Your task to perform on an android device: Open Reddit.com Image 0: 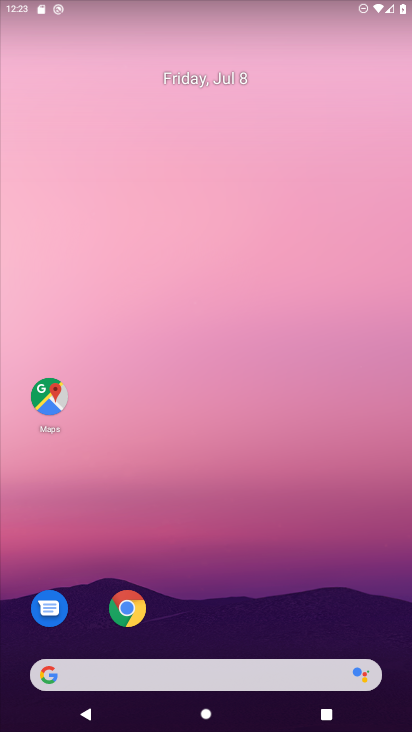
Step 0: click (124, 611)
Your task to perform on an android device: Open Reddit.com Image 1: 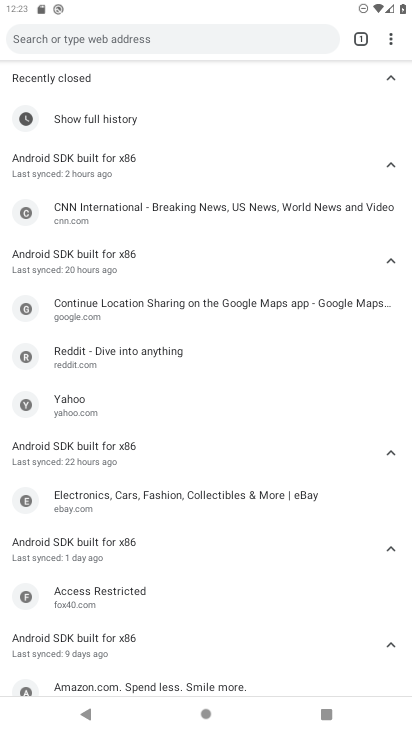
Step 1: click (392, 39)
Your task to perform on an android device: Open Reddit.com Image 2: 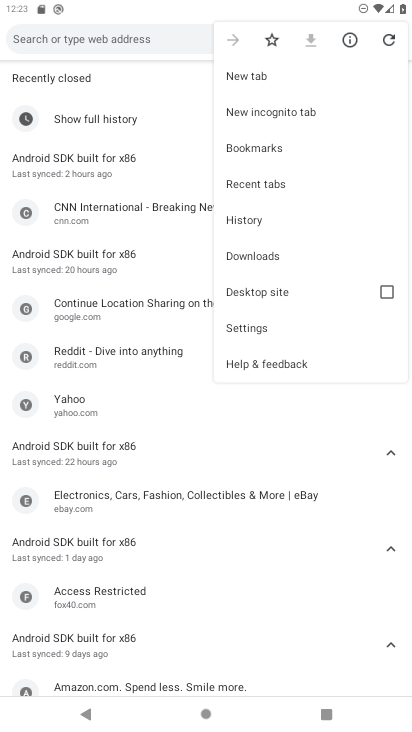
Step 2: click (244, 74)
Your task to perform on an android device: Open Reddit.com Image 3: 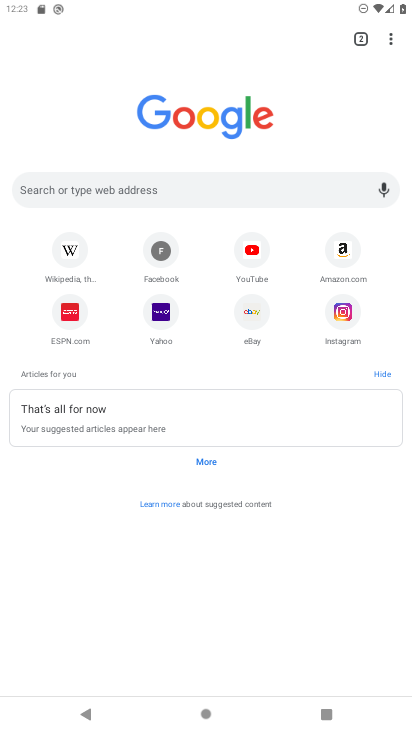
Step 3: click (190, 185)
Your task to perform on an android device: Open Reddit.com Image 4: 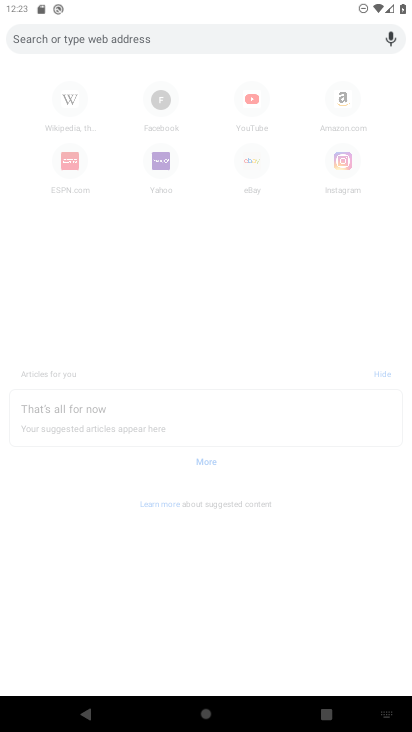
Step 4: type "Reddit.com"
Your task to perform on an android device: Open Reddit.com Image 5: 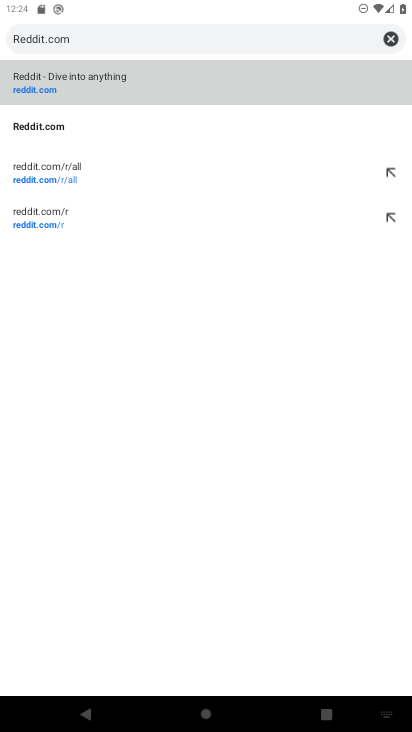
Step 5: click (51, 82)
Your task to perform on an android device: Open Reddit.com Image 6: 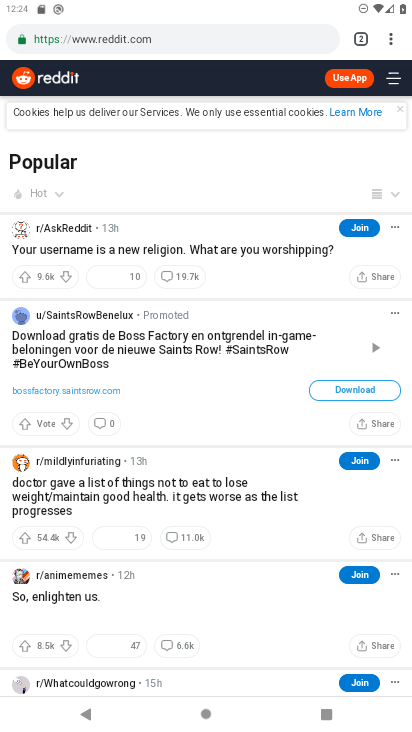
Step 6: task complete